Your task to perform on an android device: Toggle the flashlight Image 0: 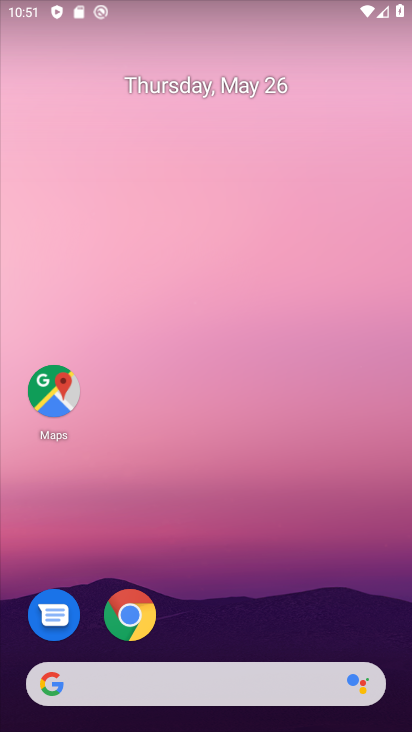
Step 0: press home button
Your task to perform on an android device: Toggle the flashlight Image 1: 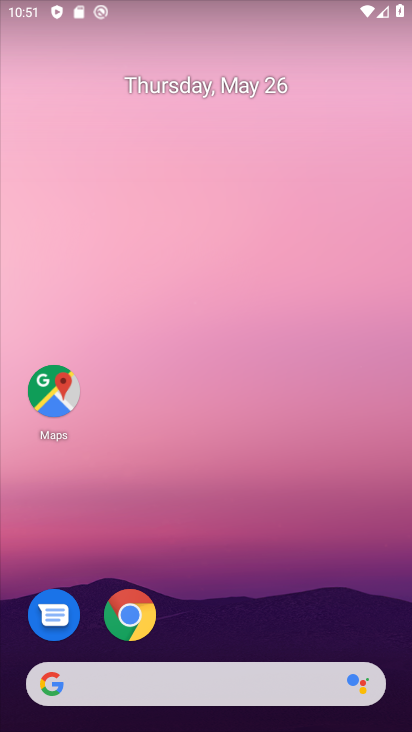
Step 1: task complete